Your task to perform on an android device: See recent photos Image 0: 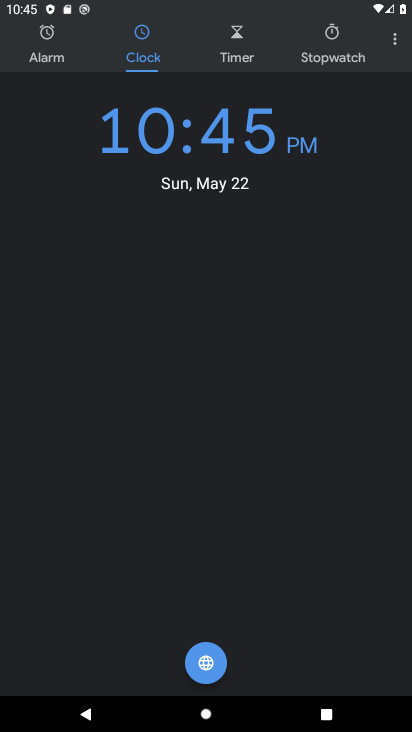
Step 0: press home button
Your task to perform on an android device: See recent photos Image 1: 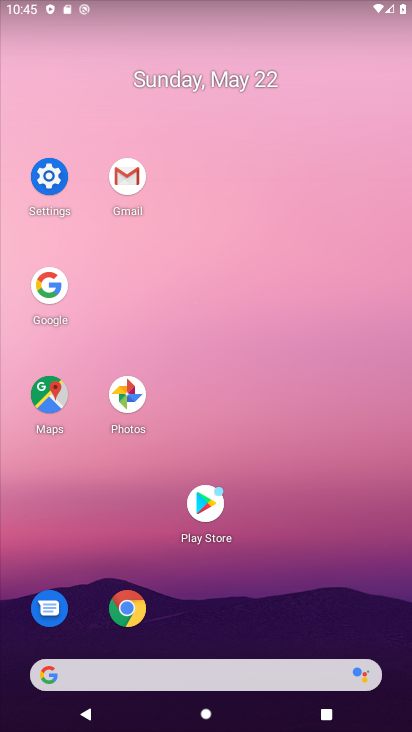
Step 1: click (123, 401)
Your task to perform on an android device: See recent photos Image 2: 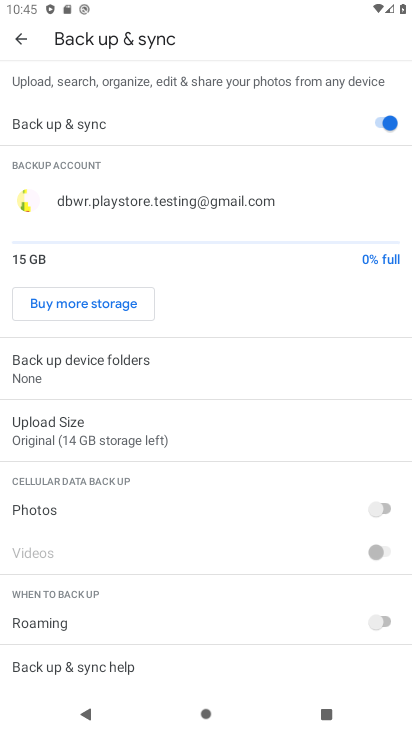
Step 2: click (20, 43)
Your task to perform on an android device: See recent photos Image 3: 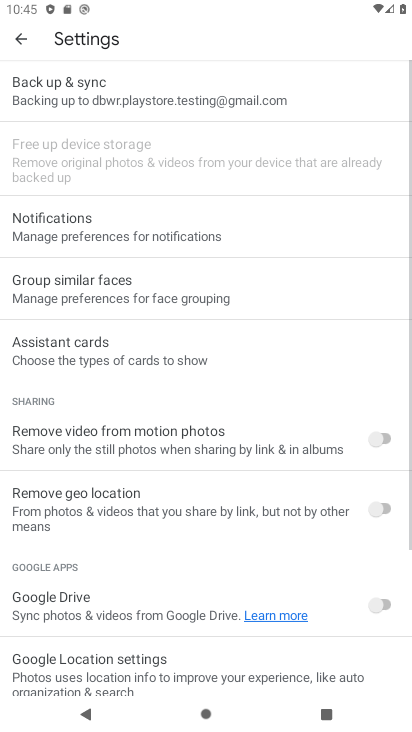
Step 3: click (15, 50)
Your task to perform on an android device: See recent photos Image 4: 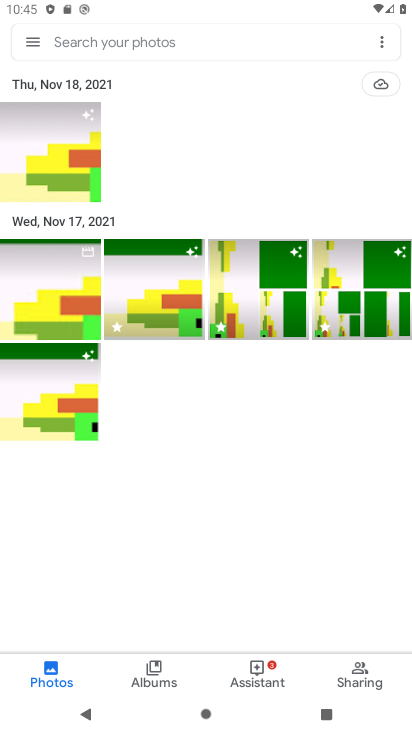
Step 4: click (82, 185)
Your task to perform on an android device: See recent photos Image 5: 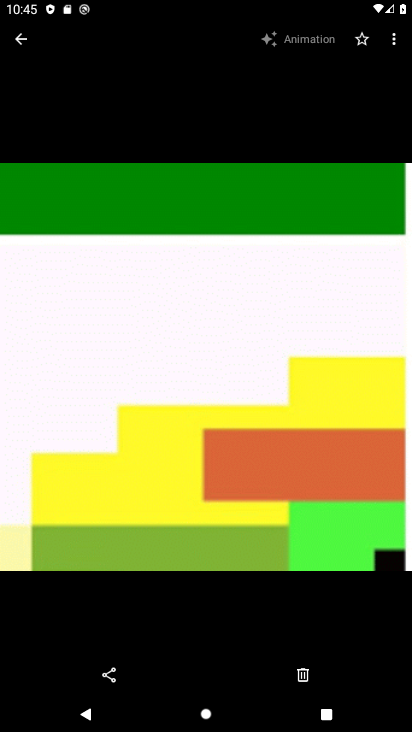
Step 5: task complete